Your task to perform on an android device: turn off translation in the chrome app Image 0: 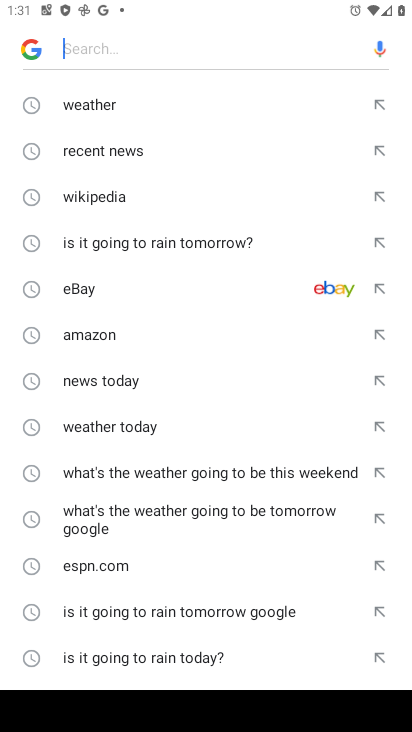
Step 0: press home button
Your task to perform on an android device: turn off translation in the chrome app Image 1: 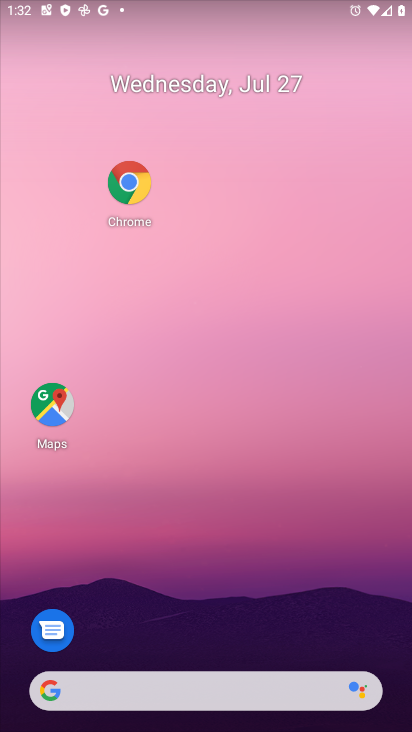
Step 1: click (122, 176)
Your task to perform on an android device: turn off translation in the chrome app Image 2: 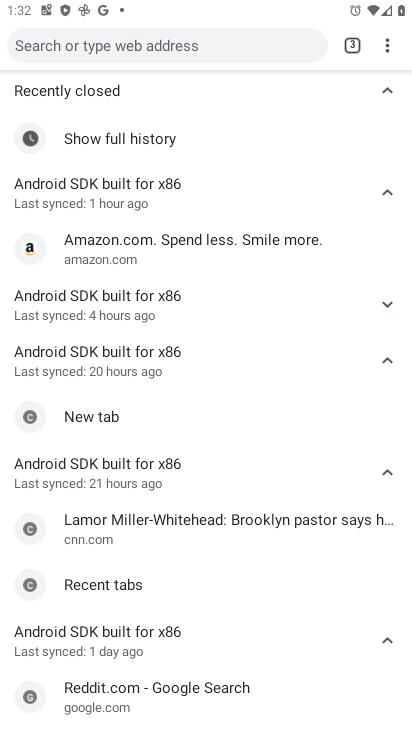
Step 2: click (380, 44)
Your task to perform on an android device: turn off translation in the chrome app Image 3: 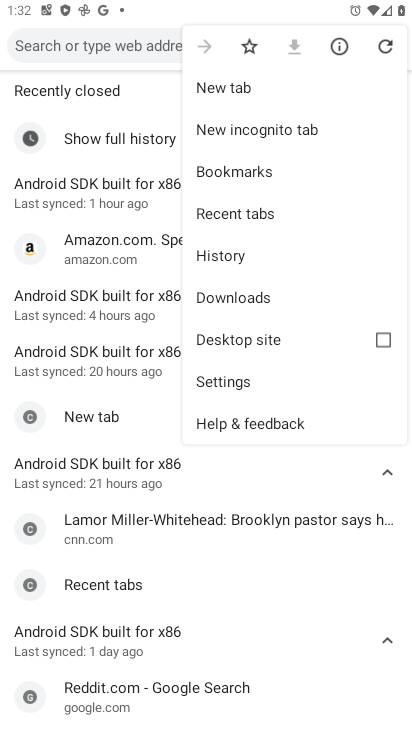
Step 3: click (261, 380)
Your task to perform on an android device: turn off translation in the chrome app Image 4: 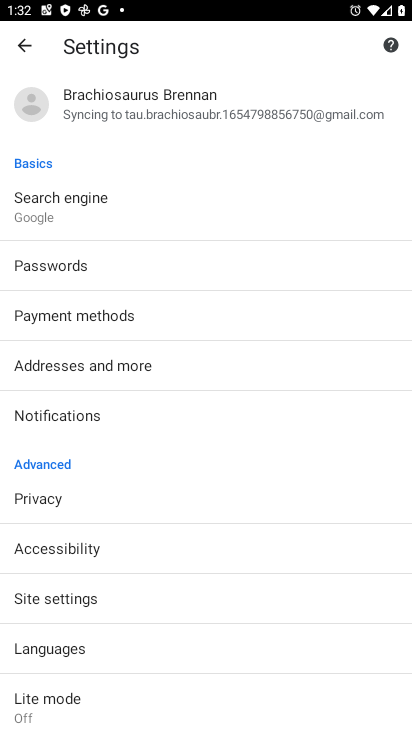
Step 4: click (48, 652)
Your task to perform on an android device: turn off translation in the chrome app Image 5: 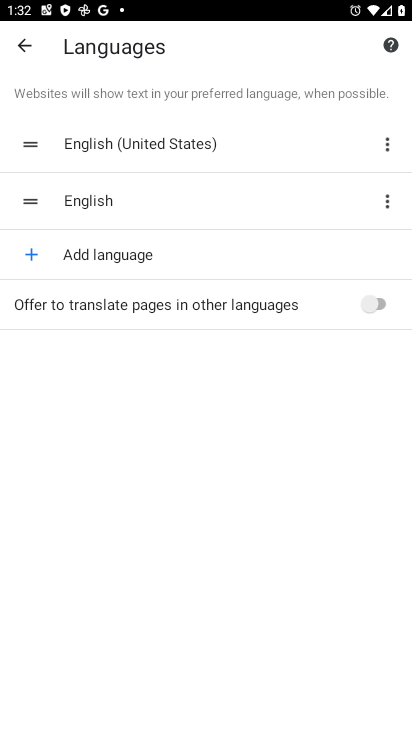
Step 5: task complete